Your task to perform on an android device: Find coffee shops on Maps Image 0: 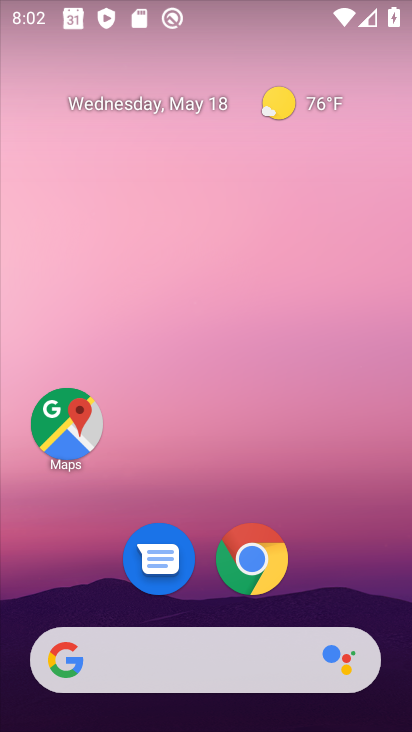
Step 0: click (71, 410)
Your task to perform on an android device: Find coffee shops on Maps Image 1: 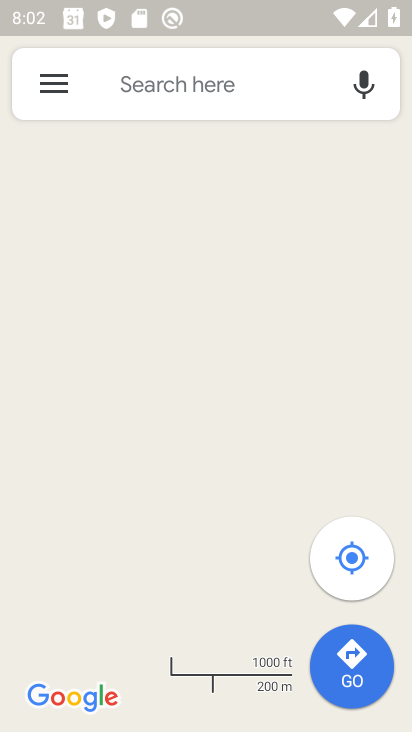
Step 1: click (171, 92)
Your task to perform on an android device: Find coffee shops on Maps Image 2: 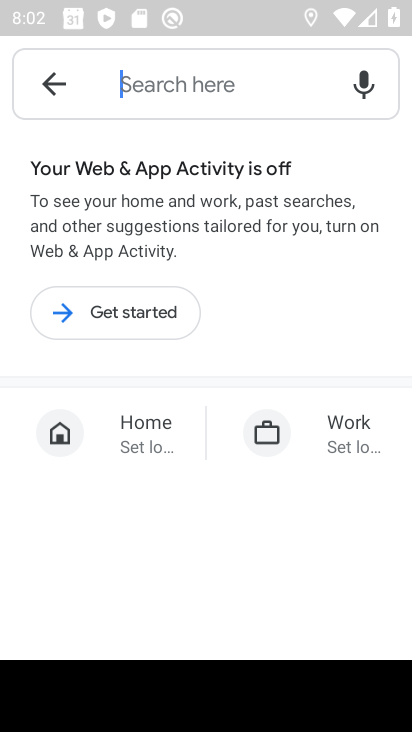
Step 2: click (128, 309)
Your task to perform on an android device: Find coffee shops on Maps Image 3: 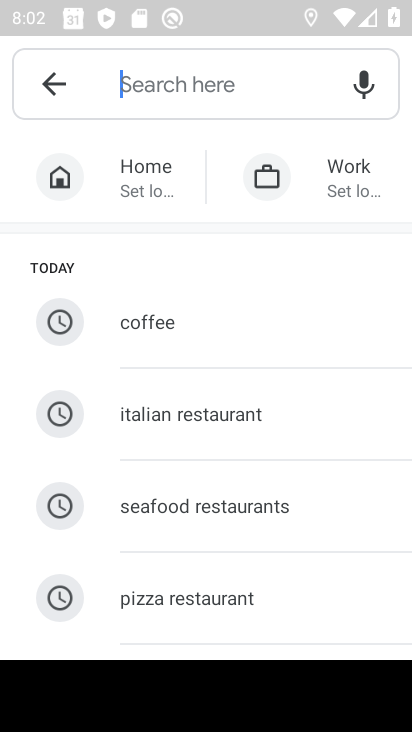
Step 3: click (168, 324)
Your task to perform on an android device: Find coffee shops on Maps Image 4: 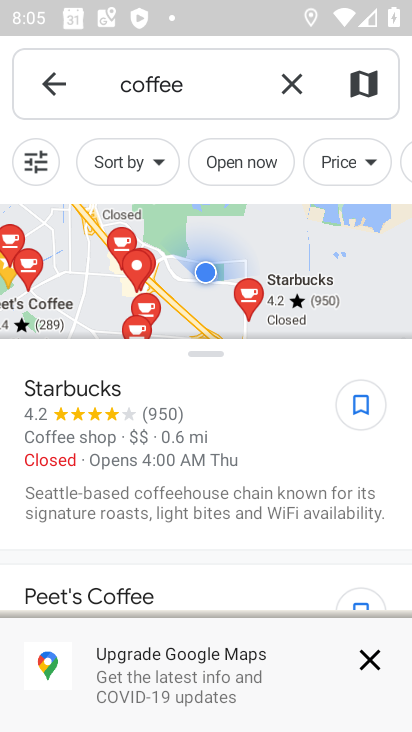
Step 4: task complete